Your task to perform on an android device: star an email in the gmail app Image 0: 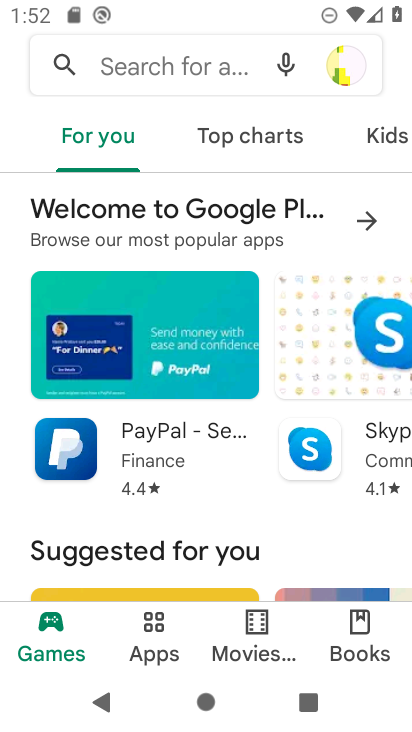
Step 0: press home button
Your task to perform on an android device: star an email in the gmail app Image 1: 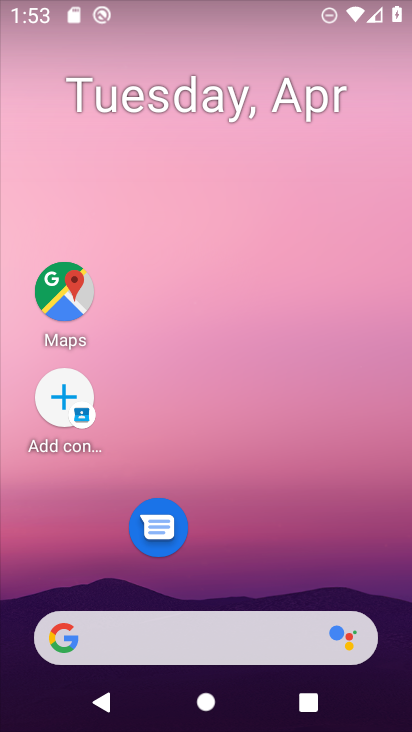
Step 1: drag from (221, 565) to (189, 149)
Your task to perform on an android device: star an email in the gmail app Image 2: 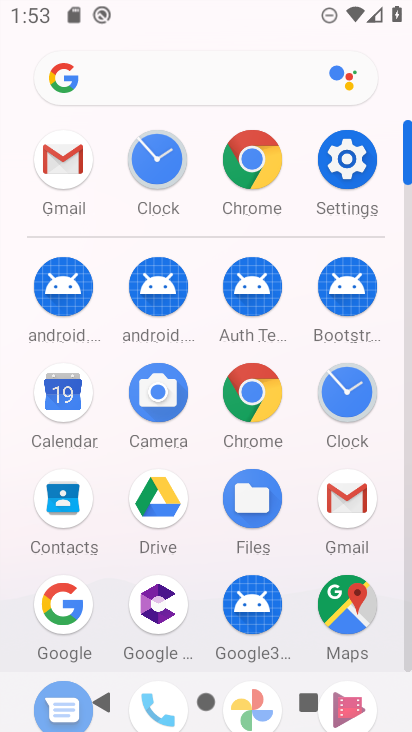
Step 2: click (348, 499)
Your task to perform on an android device: star an email in the gmail app Image 3: 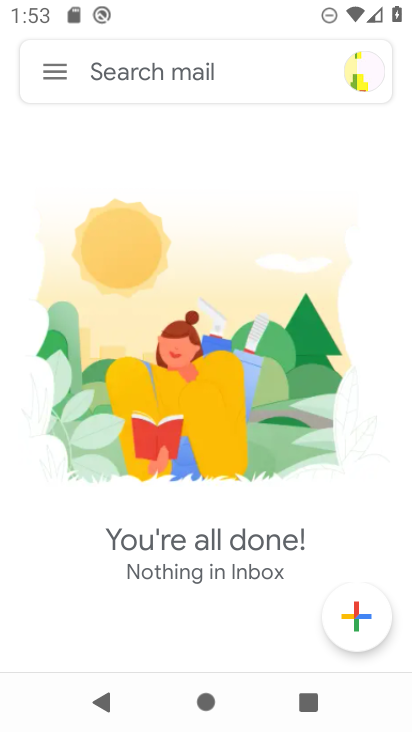
Step 3: click (55, 79)
Your task to perform on an android device: star an email in the gmail app Image 4: 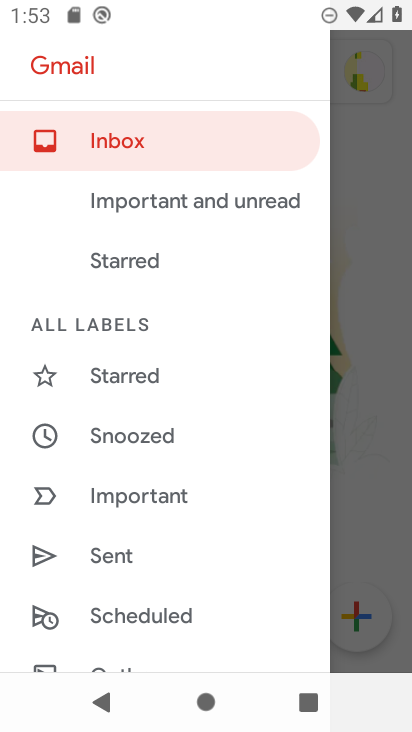
Step 4: click (130, 262)
Your task to perform on an android device: star an email in the gmail app Image 5: 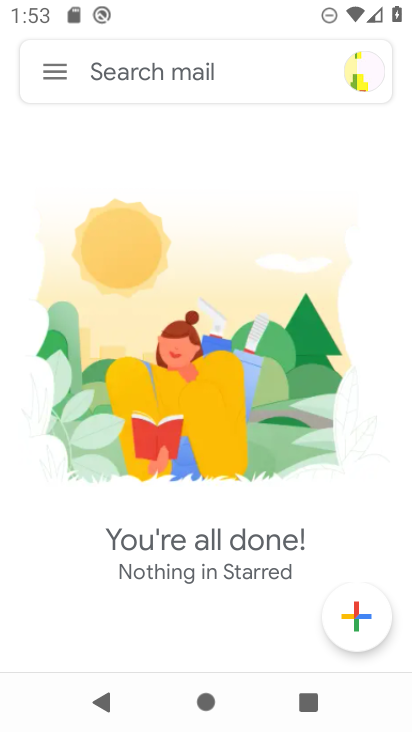
Step 5: click (48, 77)
Your task to perform on an android device: star an email in the gmail app Image 6: 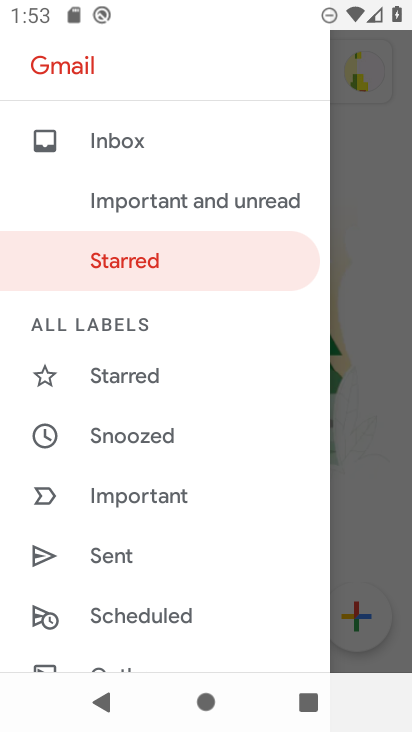
Step 6: drag from (128, 465) to (144, 405)
Your task to perform on an android device: star an email in the gmail app Image 7: 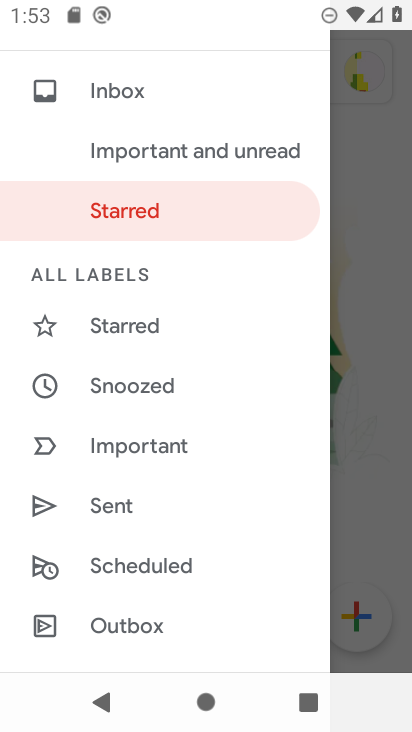
Step 7: drag from (146, 470) to (172, 403)
Your task to perform on an android device: star an email in the gmail app Image 8: 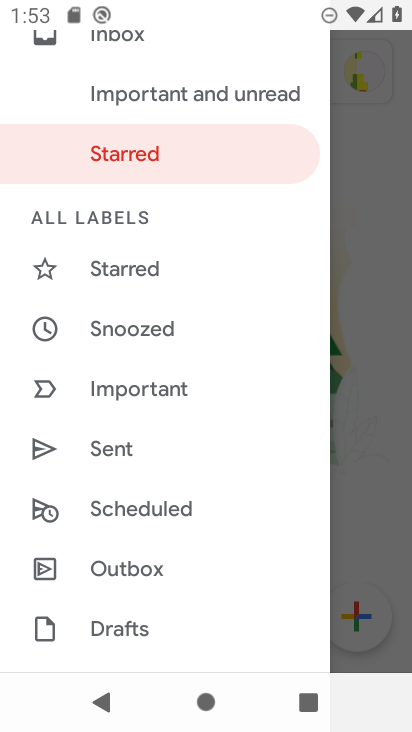
Step 8: drag from (158, 491) to (174, 417)
Your task to perform on an android device: star an email in the gmail app Image 9: 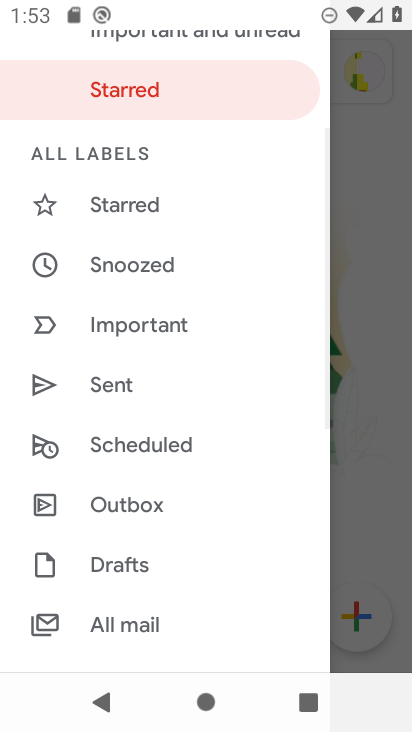
Step 9: drag from (156, 482) to (180, 400)
Your task to perform on an android device: star an email in the gmail app Image 10: 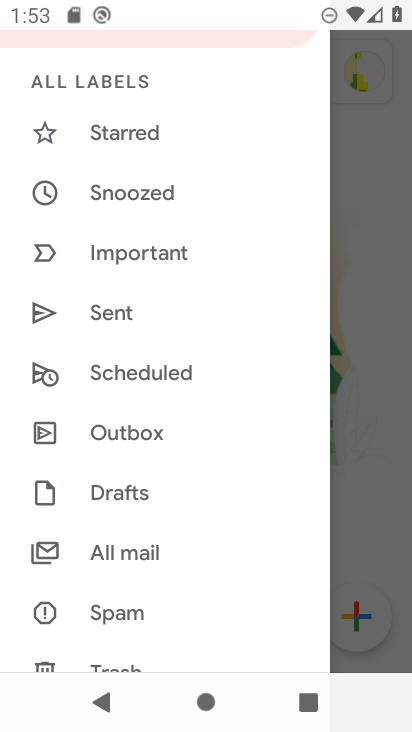
Step 10: drag from (167, 485) to (178, 422)
Your task to perform on an android device: star an email in the gmail app Image 11: 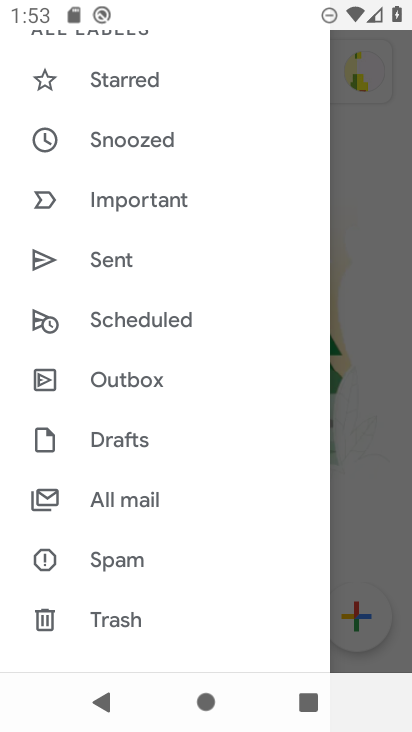
Step 11: click (147, 494)
Your task to perform on an android device: star an email in the gmail app Image 12: 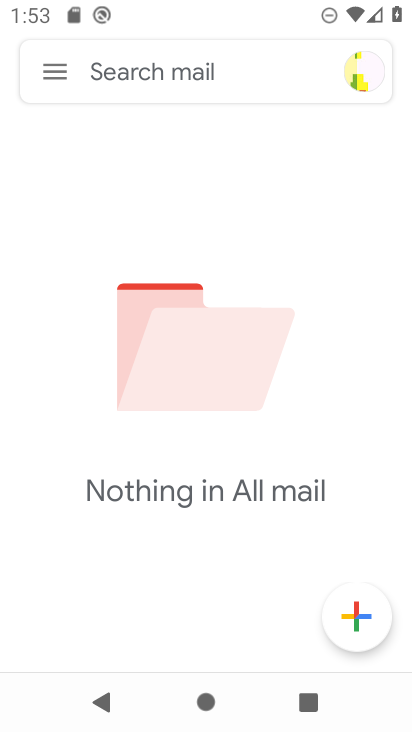
Step 12: task complete